Your task to perform on an android device: toggle notification dots Image 0: 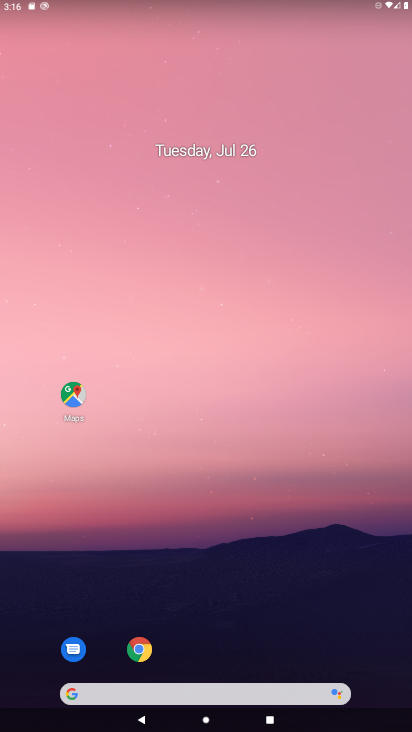
Step 0: drag from (207, 689) to (172, 32)
Your task to perform on an android device: toggle notification dots Image 1: 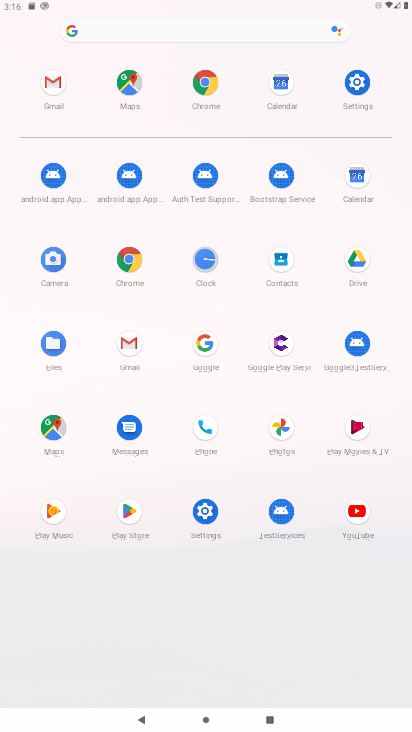
Step 1: click (208, 517)
Your task to perform on an android device: toggle notification dots Image 2: 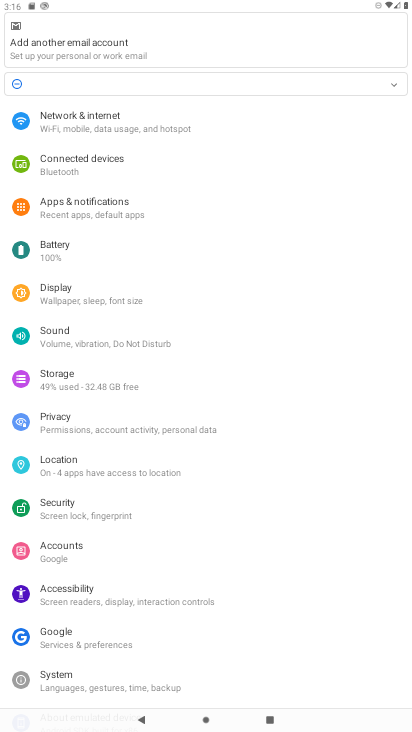
Step 2: click (91, 211)
Your task to perform on an android device: toggle notification dots Image 3: 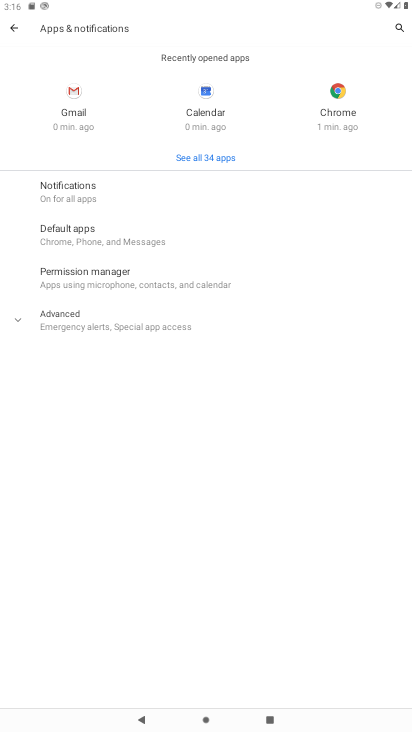
Step 3: click (61, 185)
Your task to perform on an android device: toggle notification dots Image 4: 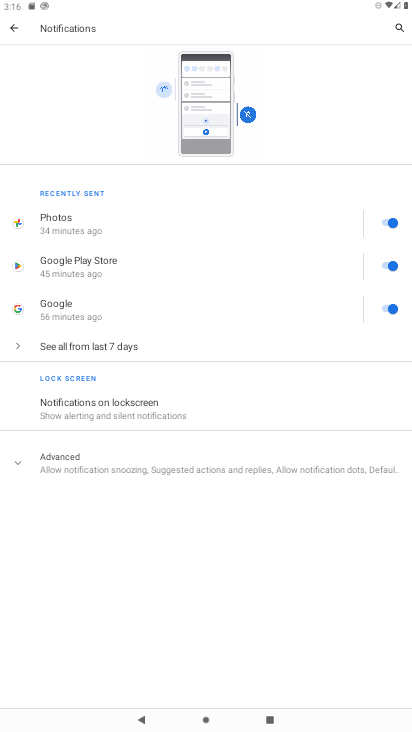
Step 4: click (144, 460)
Your task to perform on an android device: toggle notification dots Image 5: 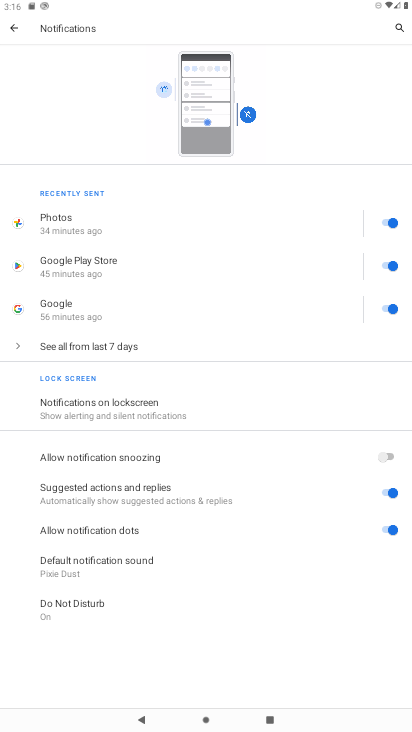
Step 5: click (383, 529)
Your task to perform on an android device: toggle notification dots Image 6: 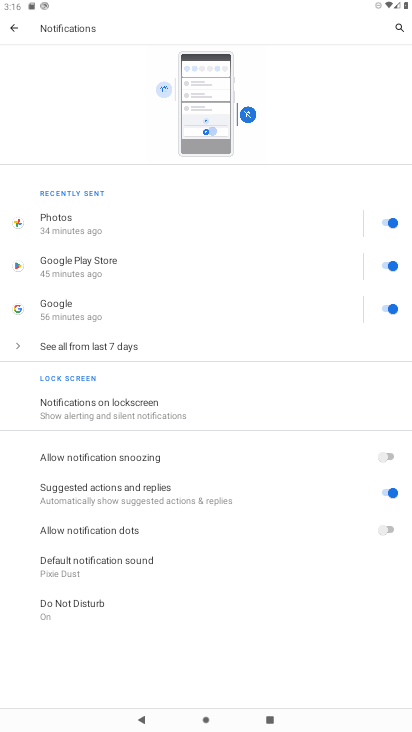
Step 6: task complete